Your task to perform on an android device: Open internet settings Image 0: 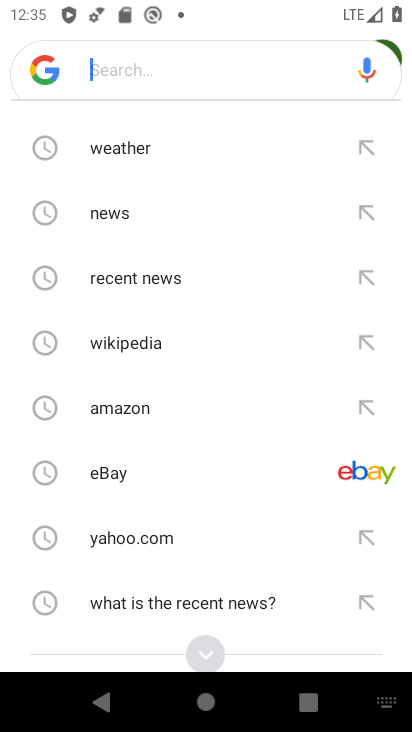
Step 0: press home button
Your task to perform on an android device: Open internet settings Image 1: 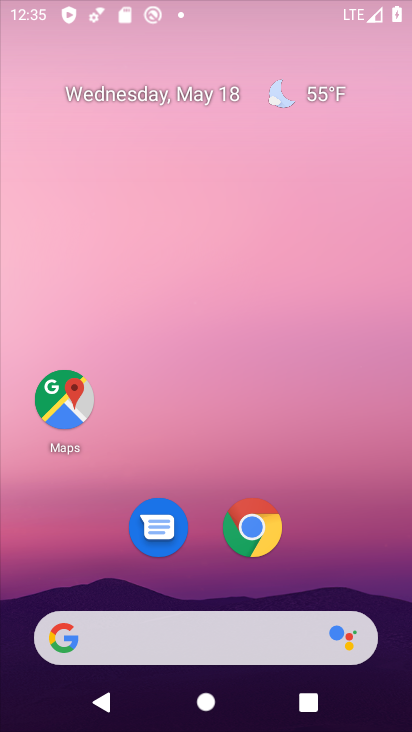
Step 1: drag from (269, 519) to (175, 12)
Your task to perform on an android device: Open internet settings Image 2: 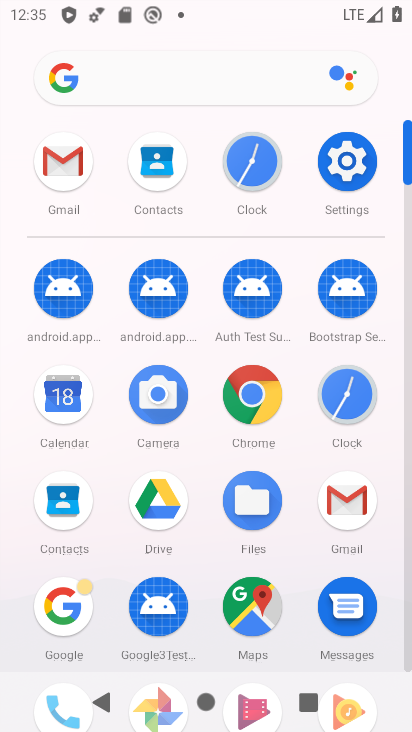
Step 2: click (357, 203)
Your task to perform on an android device: Open internet settings Image 3: 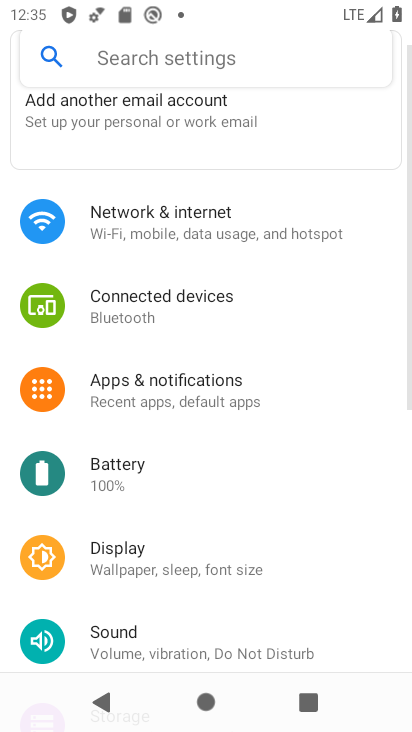
Step 3: click (241, 208)
Your task to perform on an android device: Open internet settings Image 4: 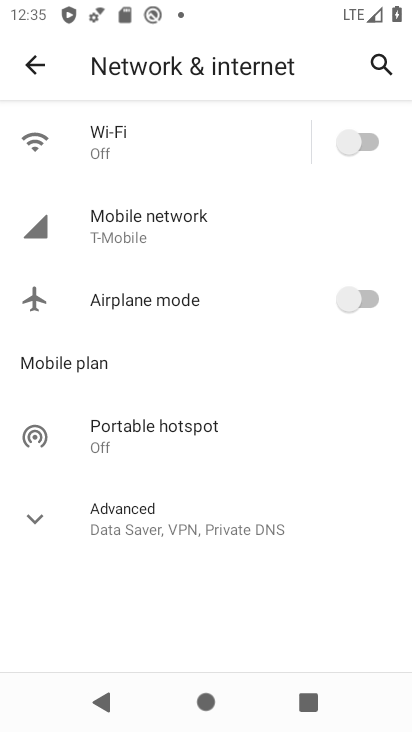
Step 4: task complete